Your task to perform on an android device: add a contact in the contacts app Image 0: 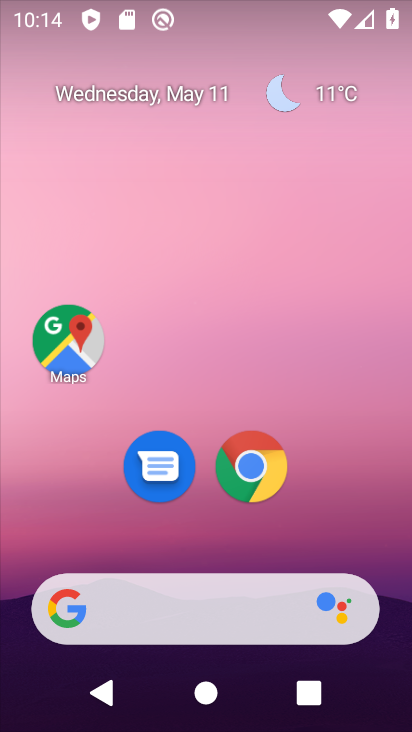
Step 0: drag from (383, 523) to (349, 229)
Your task to perform on an android device: add a contact in the contacts app Image 1: 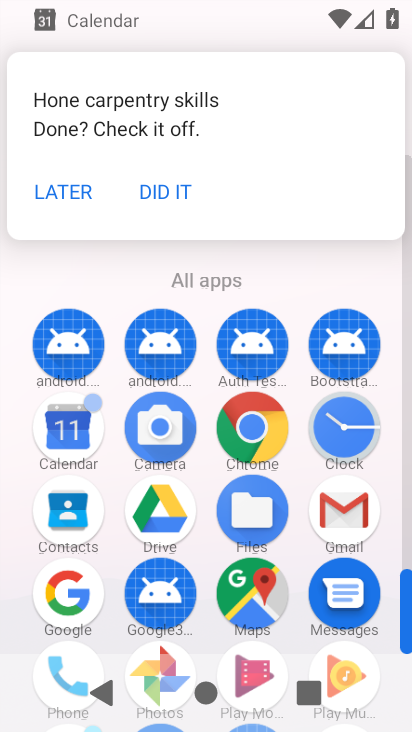
Step 1: click (77, 517)
Your task to perform on an android device: add a contact in the contacts app Image 2: 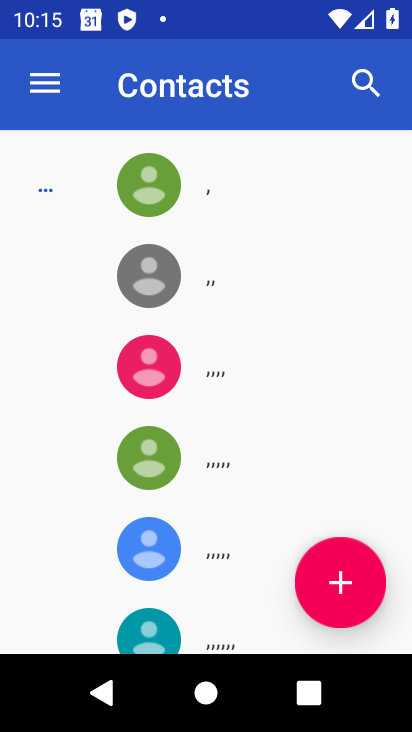
Step 2: click (349, 598)
Your task to perform on an android device: add a contact in the contacts app Image 3: 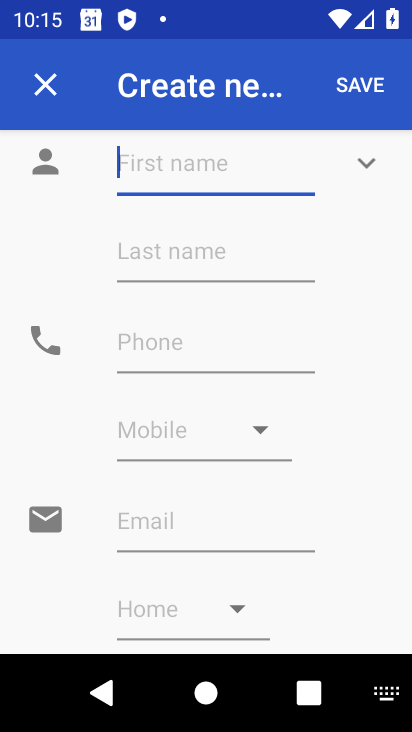
Step 3: type "gggg"
Your task to perform on an android device: add a contact in the contacts app Image 4: 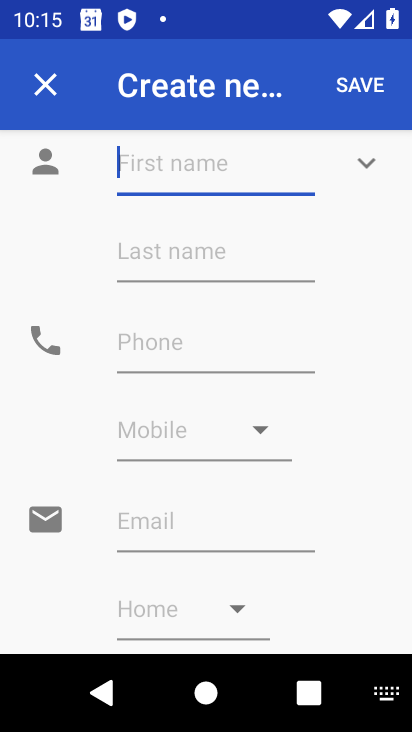
Step 4: click (260, 346)
Your task to perform on an android device: add a contact in the contacts app Image 5: 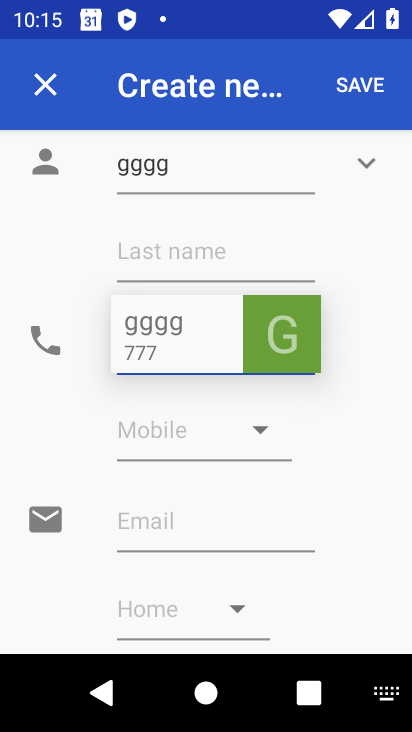
Step 5: type "6556655677"
Your task to perform on an android device: add a contact in the contacts app Image 6: 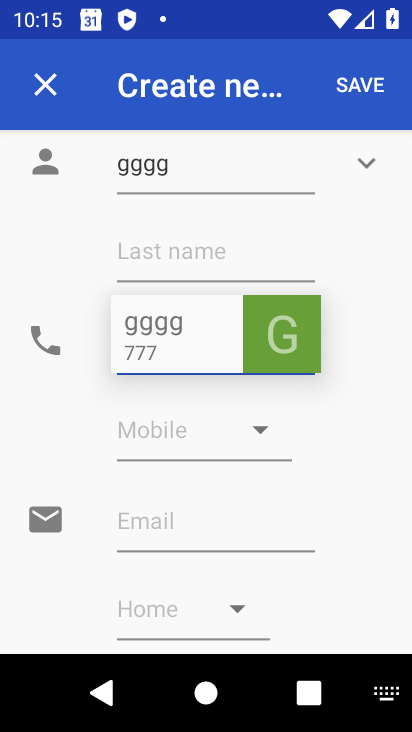
Step 6: click (366, 88)
Your task to perform on an android device: add a contact in the contacts app Image 7: 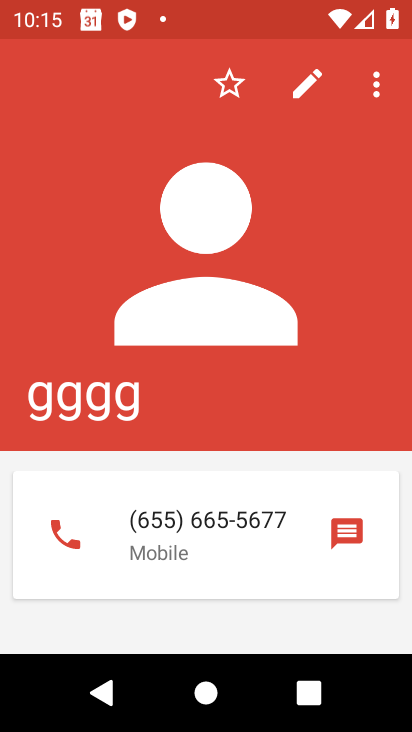
Step 7: task complete